Your task to perform on an android device: Go to Maps Image 0: 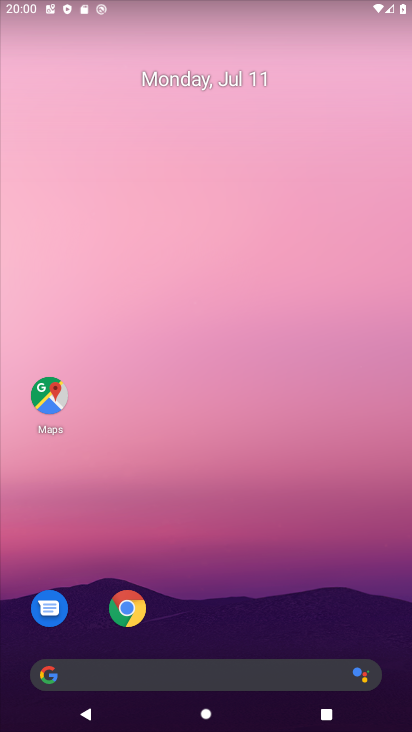
Step 0: click (46, 404)
Your task to perform on an android device: Go to Maps Image 1: 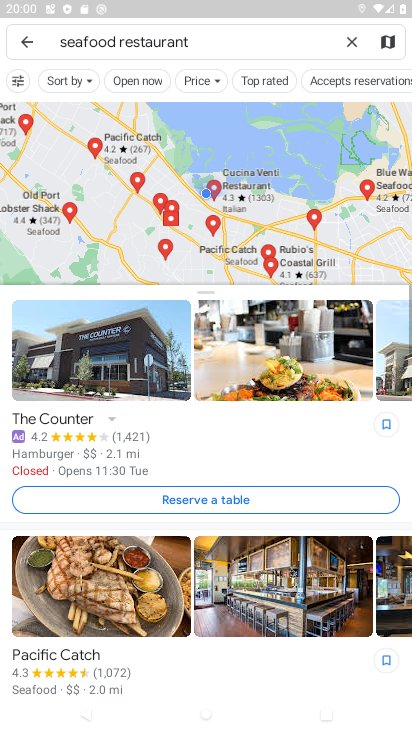
Step 1: task complete